Your task to perform on an android device: Go to eBay Image 0: 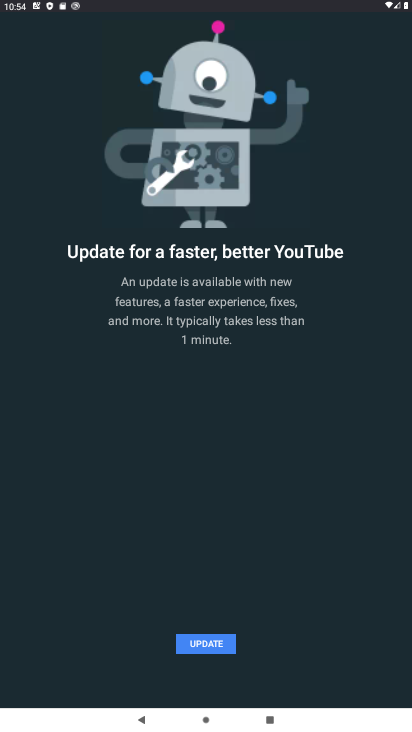
Step 0: press home button
Your task to perform on an android device: Go to eBay Image 1: 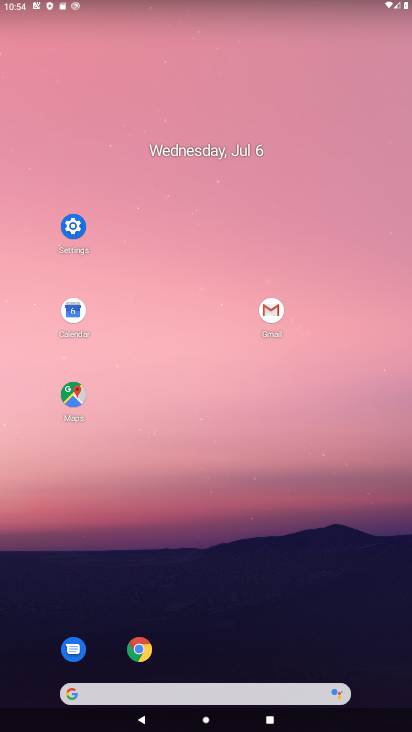
Step 1: drag from (237, 641) to (209, 133)
Your task to perform on an android device: Go to eBay Image 2: 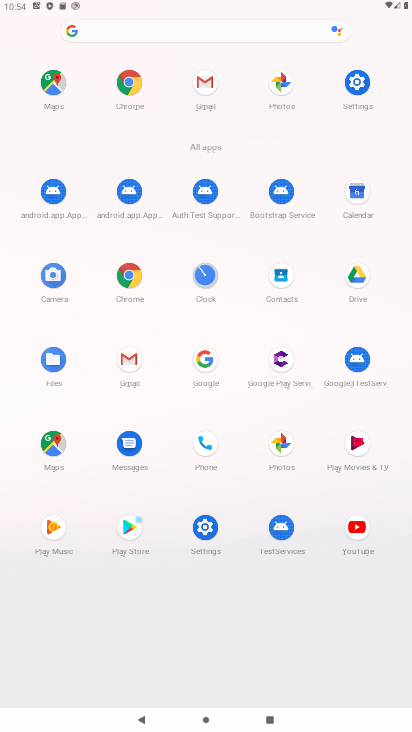
Step 2: drag from (209, 360) to (125, 272)
Your task to perform on an android device: Go to eBay Image 3: 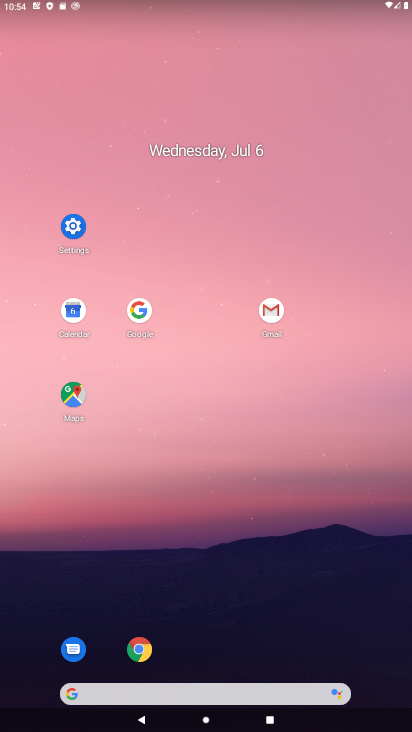
Step 3: click (150, 301)
Your task to perform on an android device: Go to eBay Image 4: 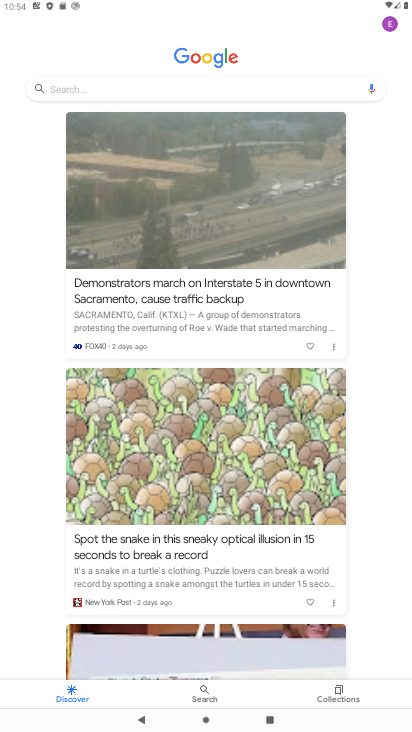
Step 4: click (81, 86)
Your task to perform on an android device: Go to eBay Image 5: 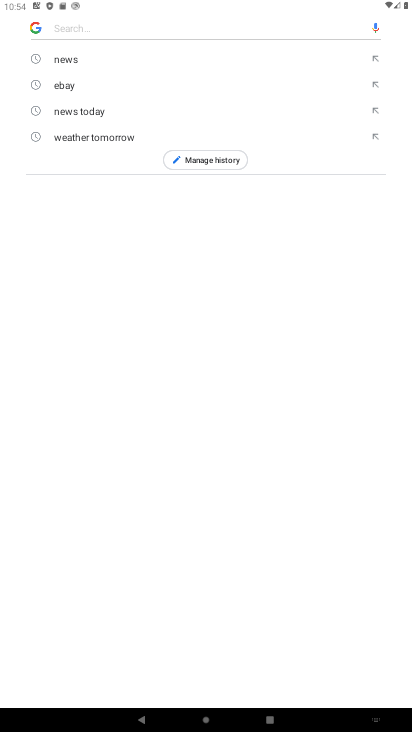
Step 5: click (81, 86)
Your task to perform on an android device: Go to eBay Image 6: 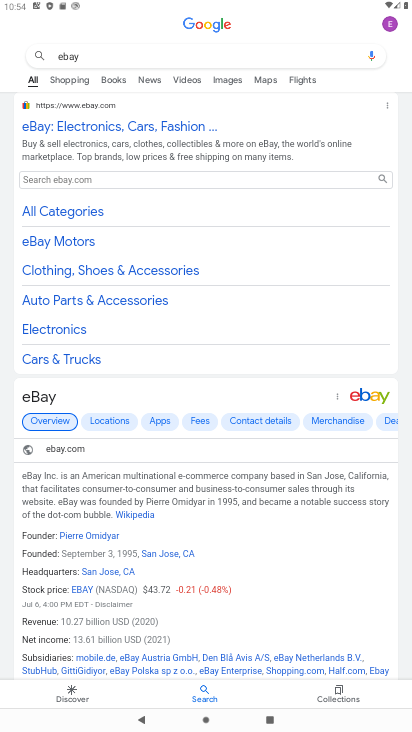
Step 6: click (107, 125)
Your task to perform on an android device: Go to eBay Image 7: 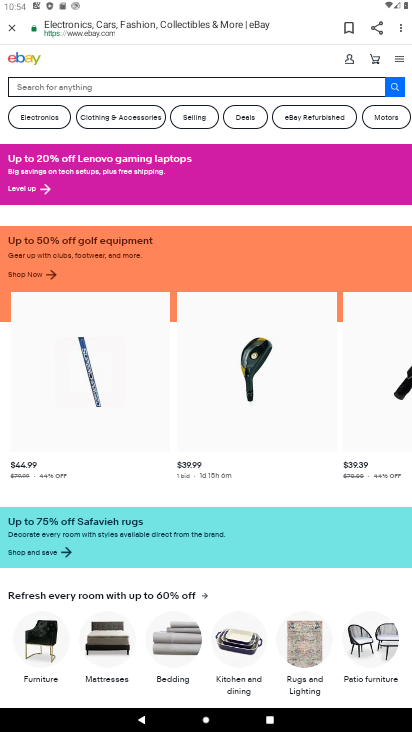
Step 7: task complete